Your task to perform on an android device: Search for vegetarian restaurants on Maps Image 0: 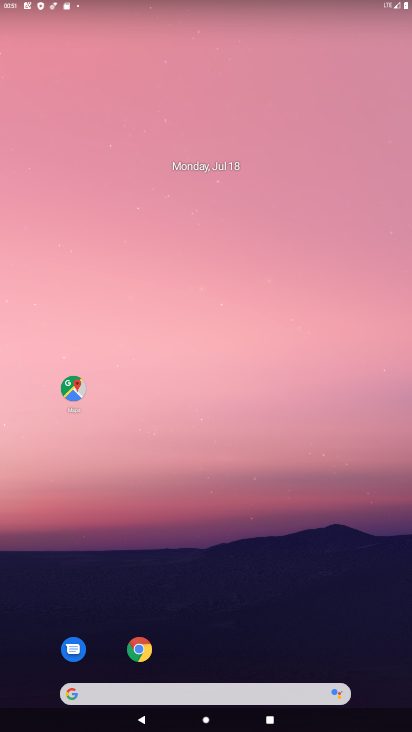
Step 0: drag from (186, 591) to (201, 140)
Your task to perform on an android device: Search for vegetarian restaurants on Maps Image 1: 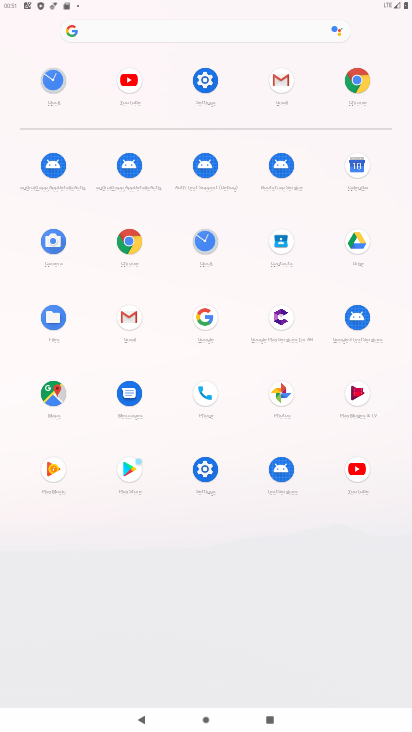
Step 1: click (46, 395)
Your task to perform on an android device: Search for vegetarian restaurants on Maps Image 2: 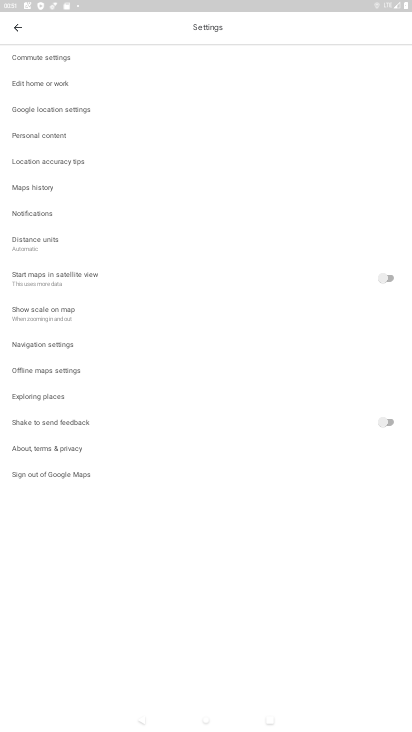
Step 2: click (16, 27)
Your task to perform on an android device: Search for vegetarian restaurants on Maps Image 3: 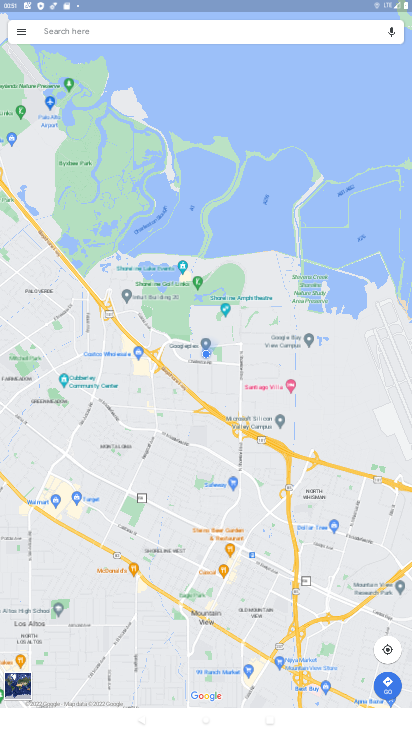
Step 3: click (19, 25)
Your task to perform on an android device: Search for vegetarian restaurants on Maps Image 4: 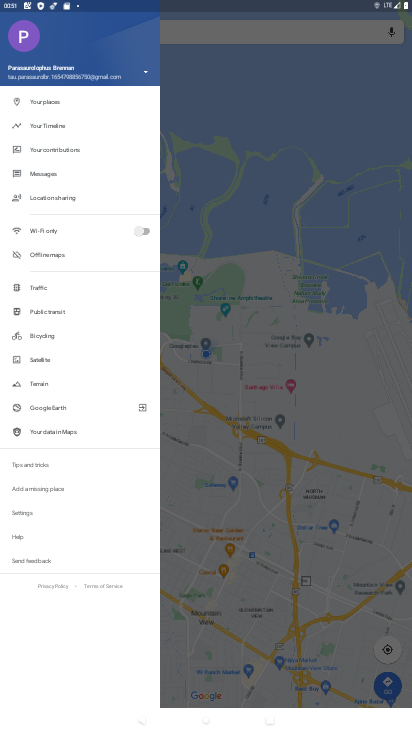
Step 4: click (167, 31)
Your task to perform on an android device: Search for vegetarian restaurants on Maps Image 5: 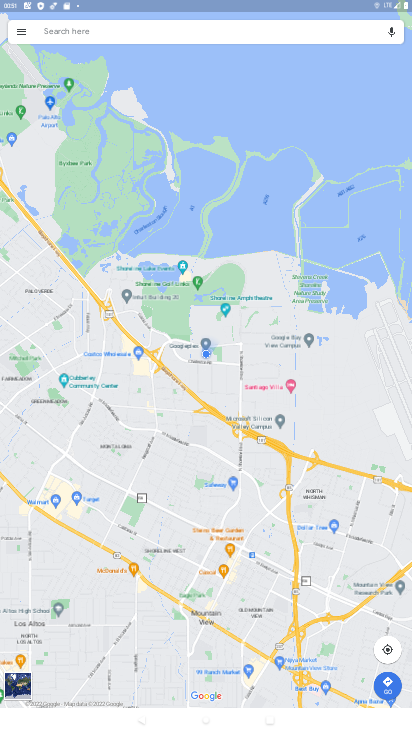
Step 5: click (167, 31)
Your task to perform on an android device: Search for vegetarian restaurants on Maps Image 6: 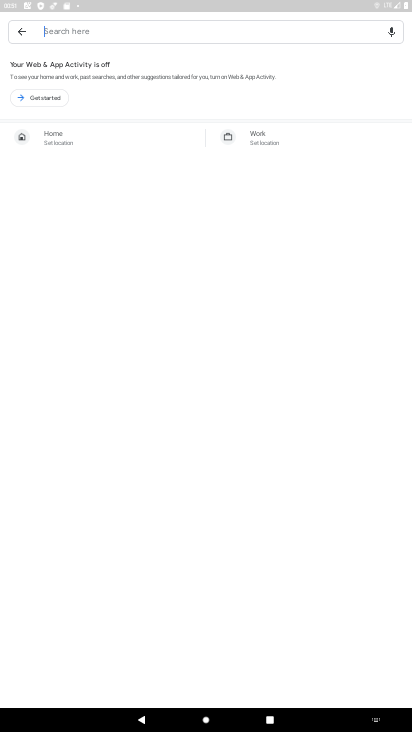
Step 6: type "vegetarian restaurants"
Your task to perform on an android device: Search for vegetarian restaurants on Maps Image 7: 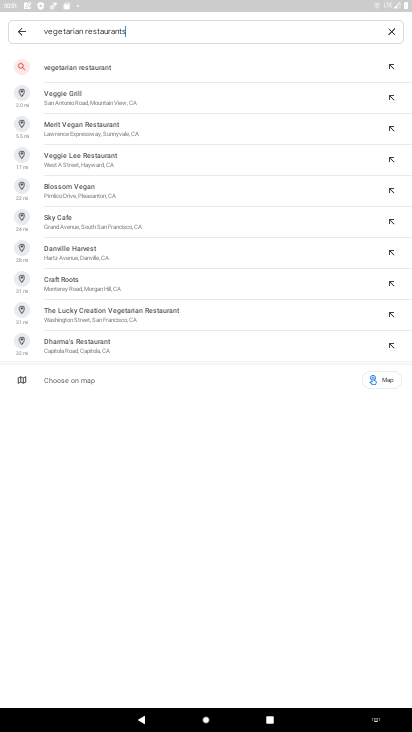
Step 7: click (95, 66)
Your task to perform on an android device: Search for vegetarian restaurants on Maps Image 8: 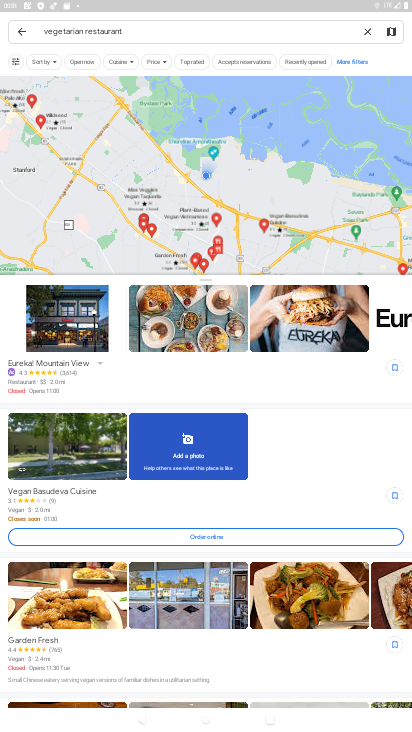
Step 8: task complete